Your task to perform on an android device: turn off wifi Image 0: 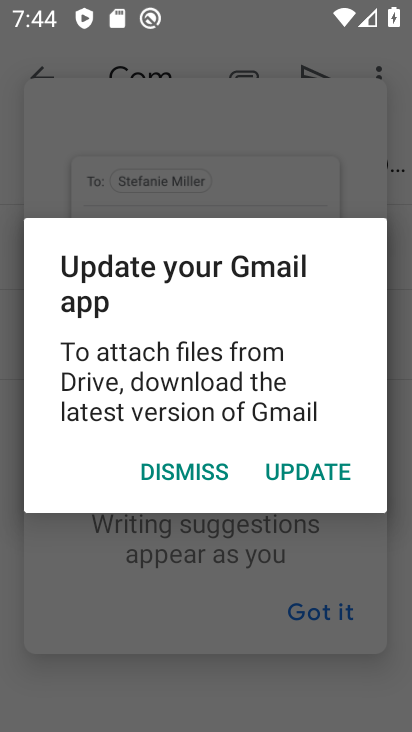
Step 0: press back button
Your task to perform on an android device: turn off wifi Image 1: 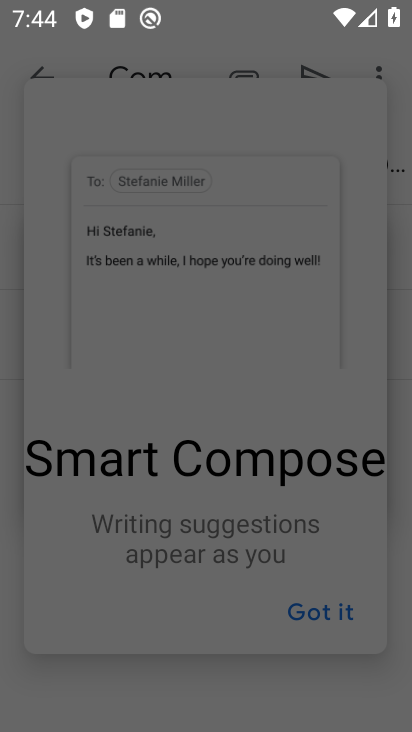
Step 1: drag from (197, 12) to (192, 488)
Your task to perform on an android device: turn off wifi Image 2: 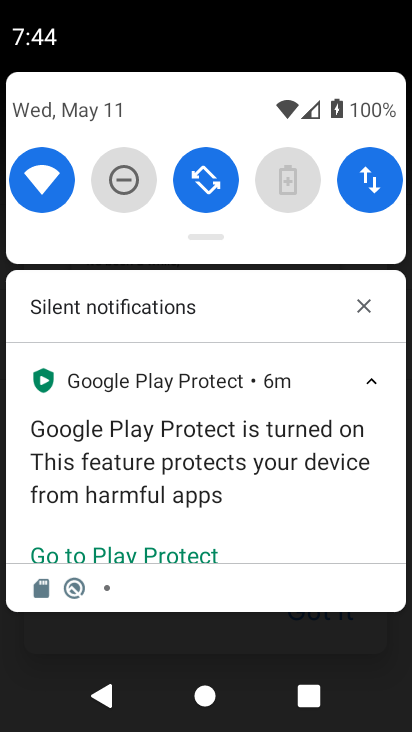
Step 2: click (58, 171)
Your task to perform on an android device: turn off wifi Image 3: 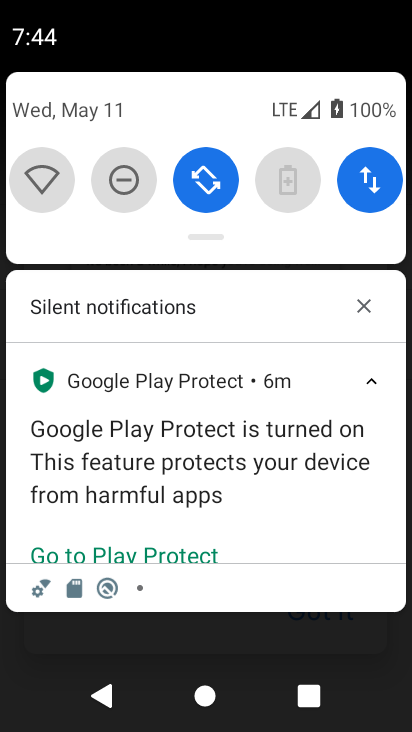
Step 3: task complete